Your task to perform on an android device: Open Google Maps Image 0: 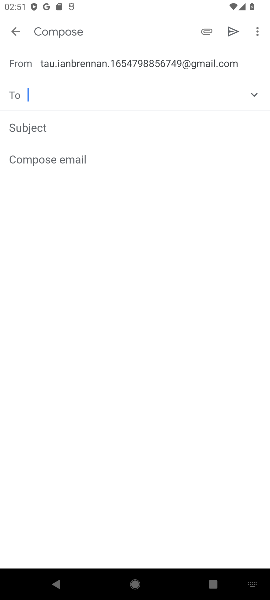
Step 0: press home button
Your task to perform on an android device: Open Google Maps Image 1: 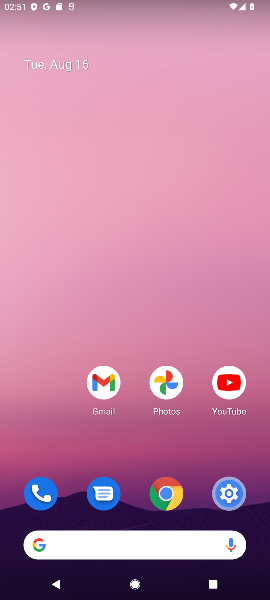
Step 1: drag from (66, 451) to (82, 95)
Your task to perform on an android device: Open Google Maps Image 2: 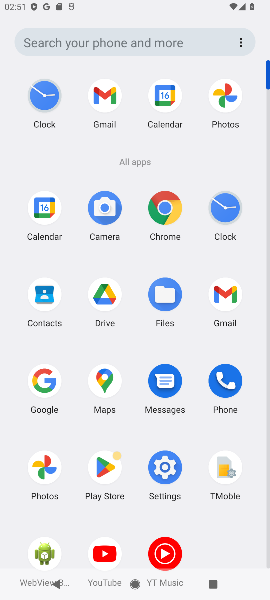
Step 2: click (103, 378)
Your task to perform on an android device: Open Google Maps Image 3: 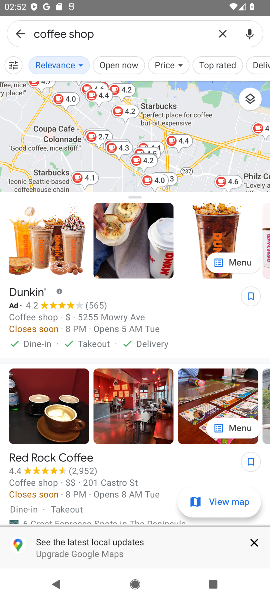
Step 3: task complete